Your task to perform on an android device: Show me popular videos on Youtube Image 0: 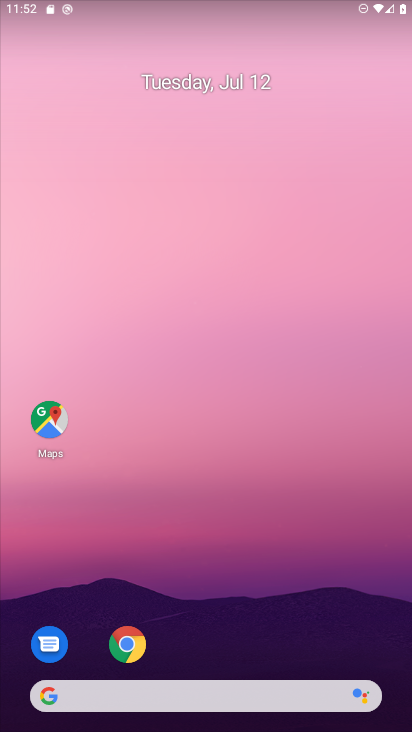
Step 0: drag from (213, 726) to (341, 138)
Your task to perform on an android device: Show me popular videos on Youtube Image 1: 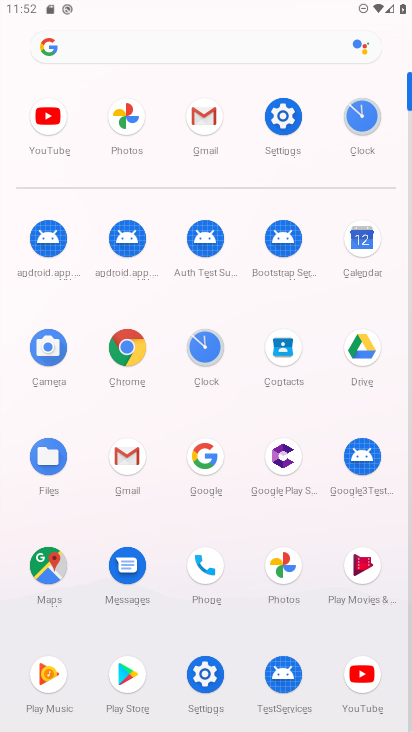
Step 1: click (367, 677)
Your task to perform on an android device: Show me popular videos on Youtube Image 2: 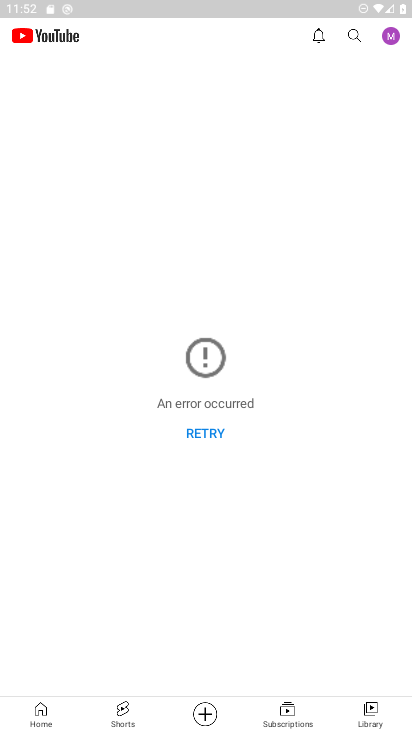
Step 2: click (382, 713)
Your task to perform on an android device: Show me popular videos on Youtube Image 3: 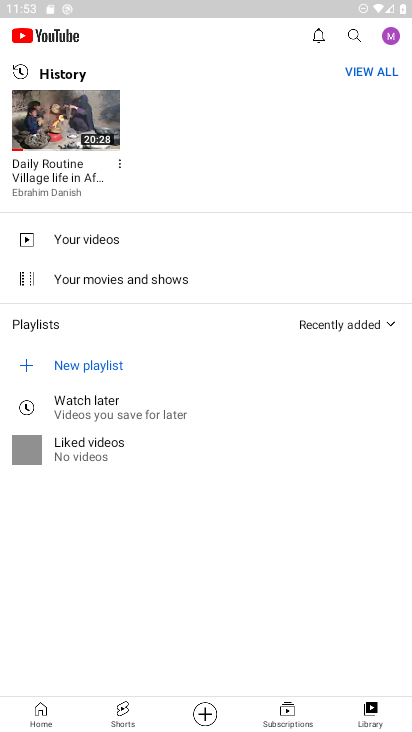
Step 3: click (54, 118)
Your task to perform on an android device: Show me popular videos on Youtube Image 4: 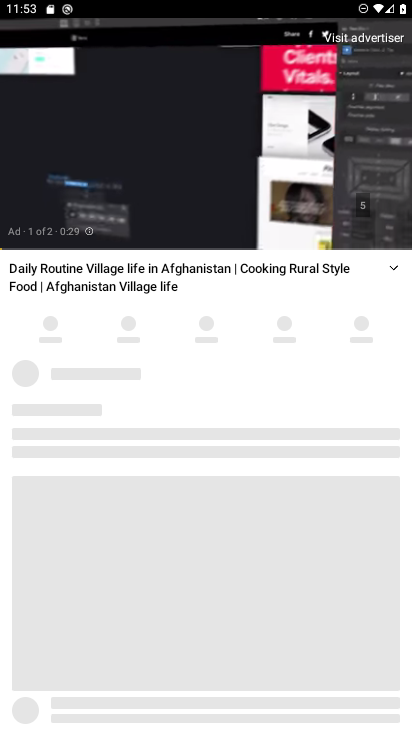
Step 4: task complete